Your task to perform on an android device: Go to CNN.com Image 0: 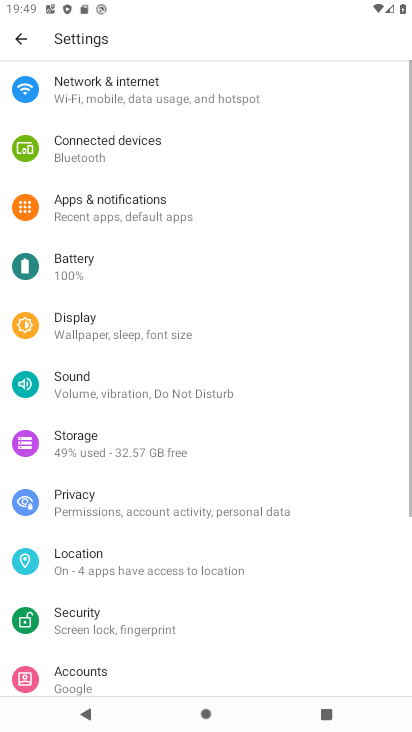
Step 0: press home button
Your task to perform on an android device: Go to CNN.com Image 1: 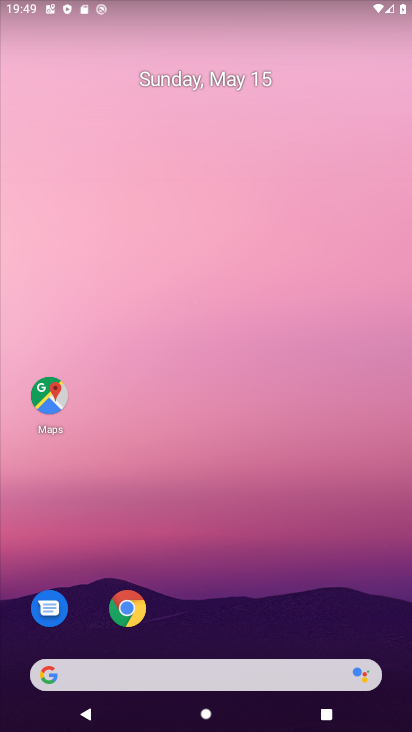
Step 1: click (180, 677)
Your task to perform on an android device: Go to CNN.com Image 2: 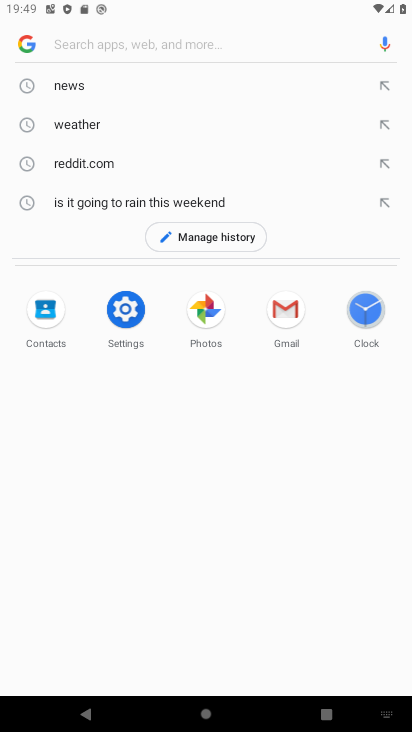
Step 2: type "cnn.com"
Your task to perform on an android device: Go to CNN.com Image 3: 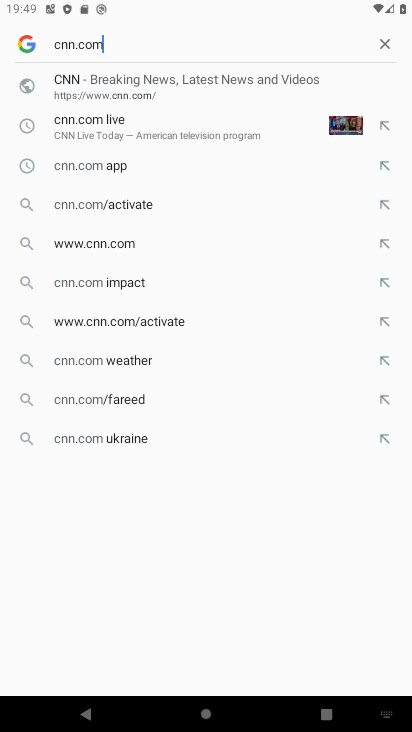
Step 3: click (138, 90)
Your task to perform on an android device: Go to CNN.com Image 4: 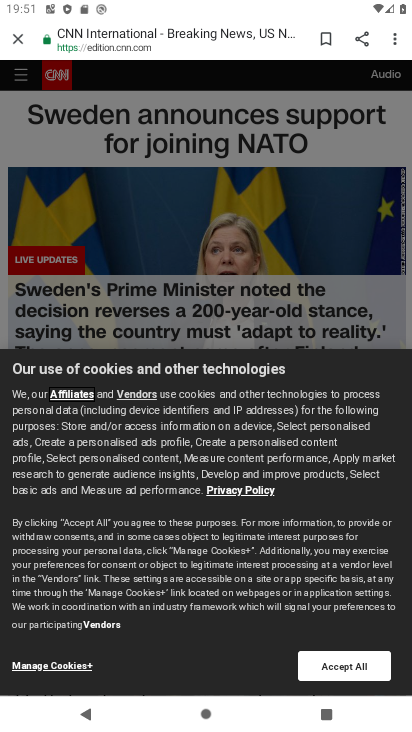
Step 4: task complete